Your task to perform on an android device: Check the news Image 0: 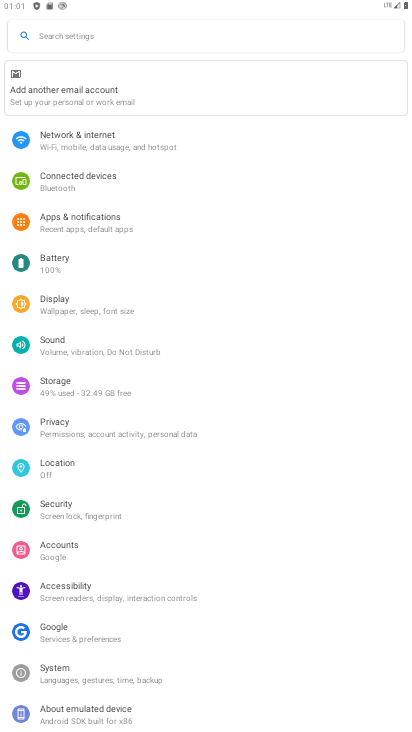
Step 0: press home button
Your task to perform on an android device: Check the news Image 1: 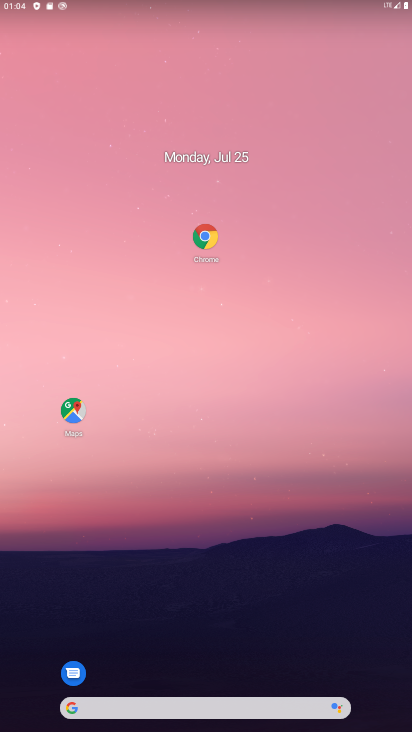
Step 1: drag from (226, 685) to (199, 29)
Your task to perform on an android device: Check the news Image 2: 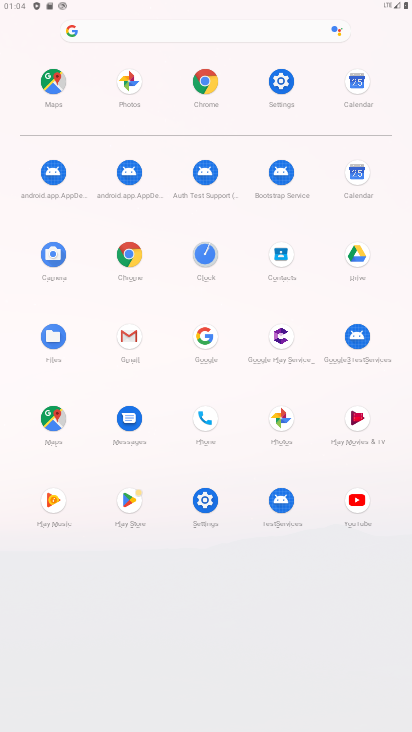
Step 2: click (115, 256)
Your task to perform on an android device: Check the news Image 3: 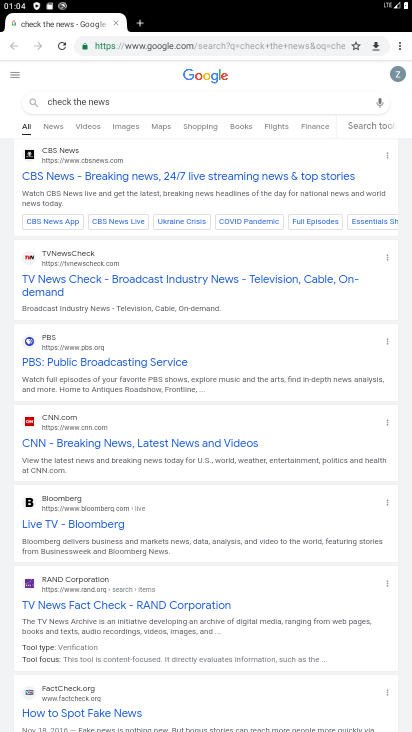
Step 3: click (184, 38)
Your task to perform on an android device: Check the news Image 4: 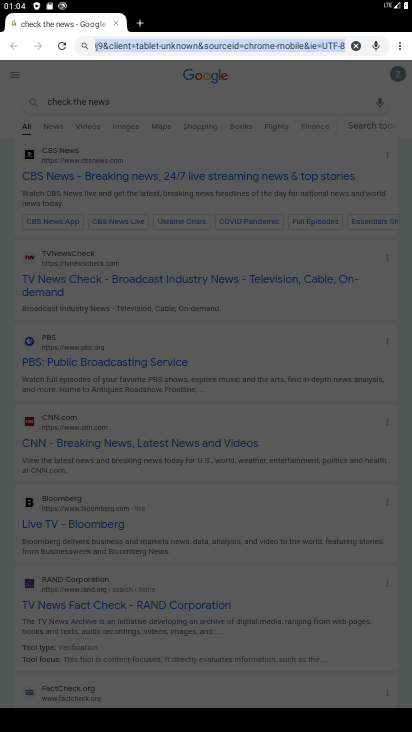
Step 4: type "check the news"
Your task to perform on an android device: Check the news Image 5: 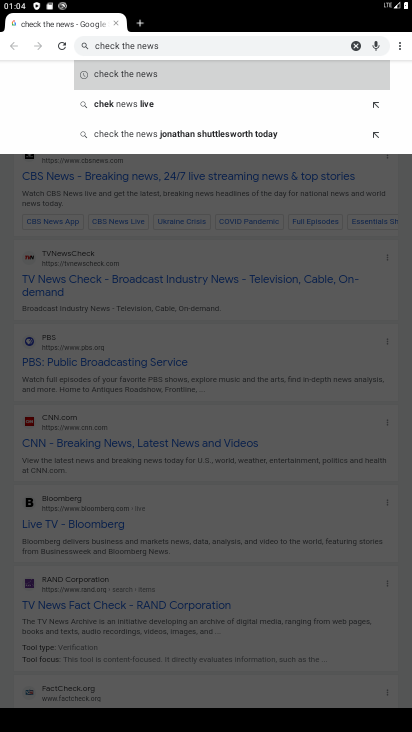
Step 5: click (196, 82)
Your task to perform on an android device: Check the news Image 6: 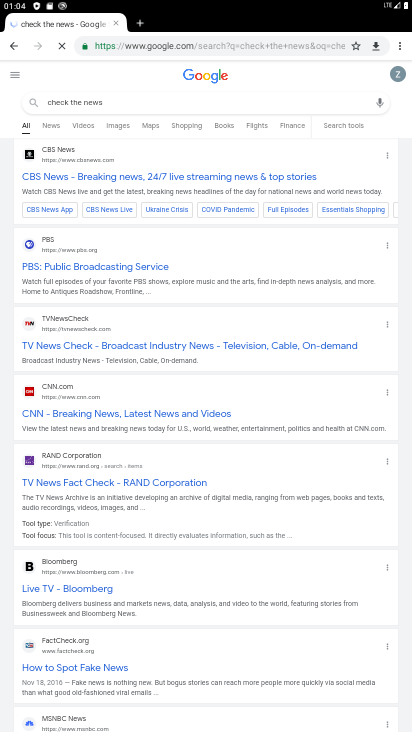
Step 6: task complete